Your task to perform on an android device: Open Google Maps and go to "Timeline" Image 0: 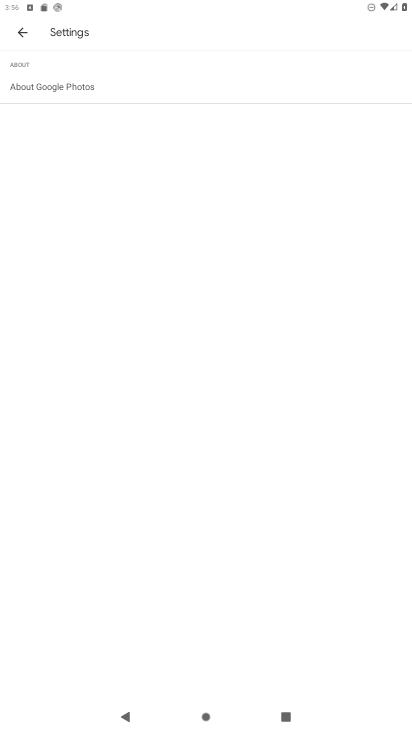
Step 0: press home button
Your task to perform on an android device: Open Google Maps and go to "Timeline" Image 1: 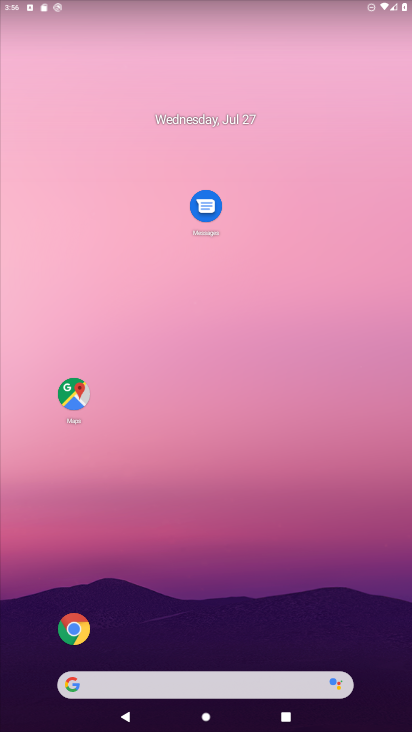
Step 1: click (80, 408)
Your task to perform on an android device: Open Google Maps and go to "Timeline" Image 2: 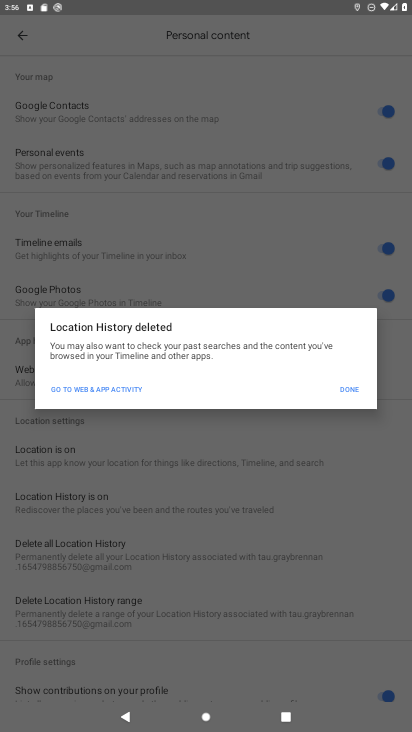
Step 2: click (350, 393)
Your task to perform on an android device: Open Google Maps and go to "Timeline" Image 3: 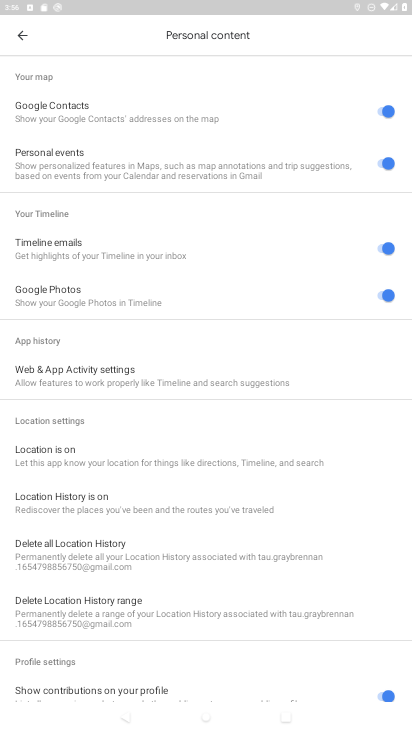
Step 3: click (13, 29)
Your task to perform on an android device: Open Google Maps and go to "Timeline" Image 4: 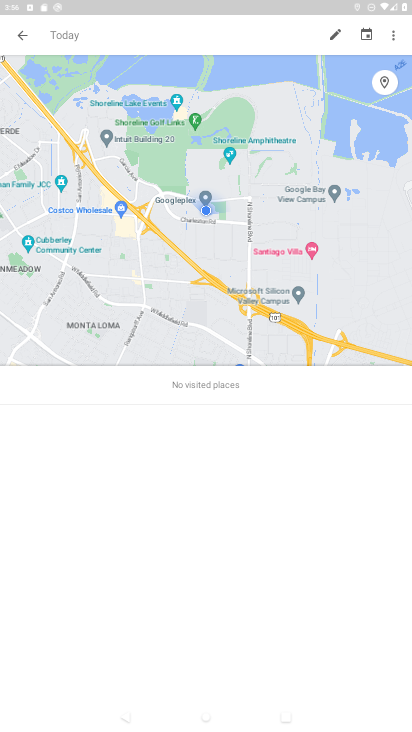
Step 4: task complete